Your task to perform on an android device: check data usage Image 0: 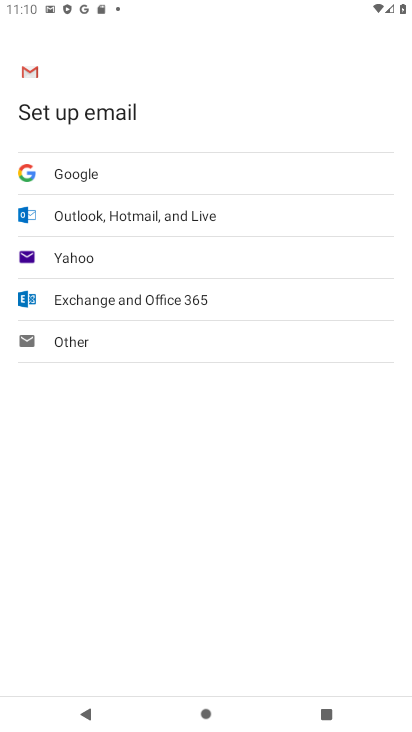
Step 0: drag from (220, 577) to (246, 29)
Your task to perform on an android device: check data usage Image 1: 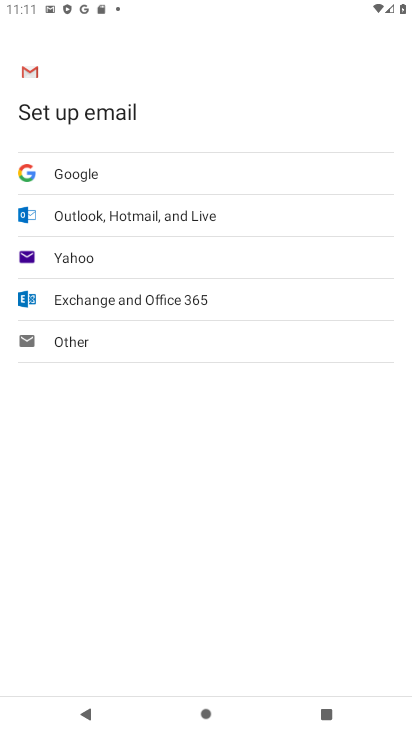
Step 1: press home button
Your task to perform on an android device: check data usage Image 2: 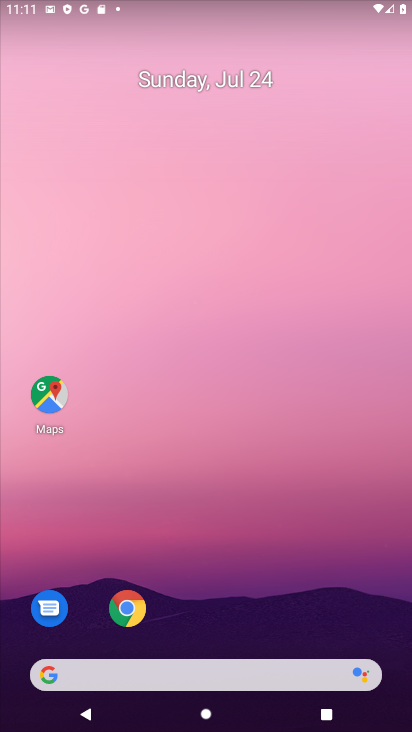
Step 2: drag from (298, 394) to (276, 56)
Your task to perform on an android device: check data usage Image 3: 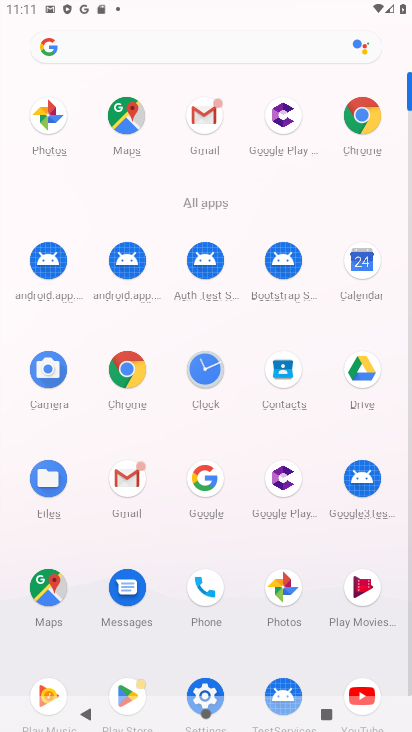
Step 3: click (228, 708)
Your task to perform on an android device: check data usage Image 4: 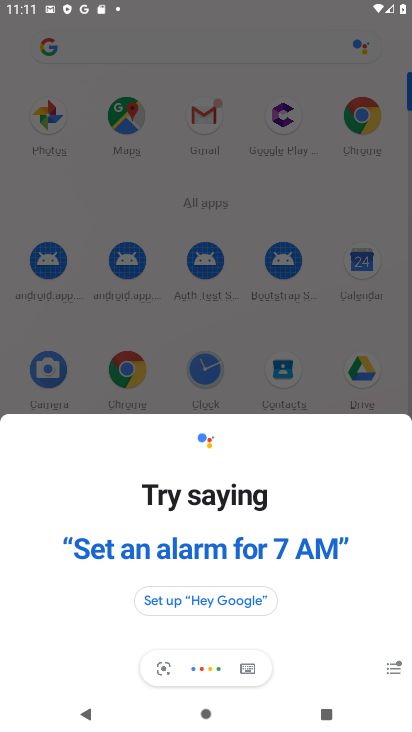
Step 4: click (124, 59)
Your task to perform on an android device: check data usage Image 5: 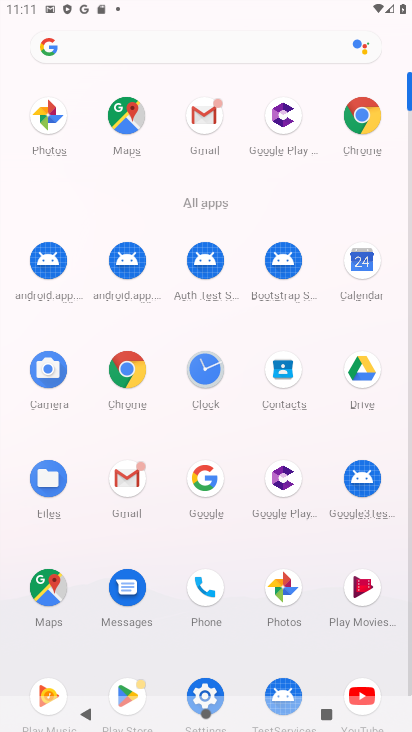
Step 5: click (217, 701)
Your task to perform on an android device: check data usage Image 6: 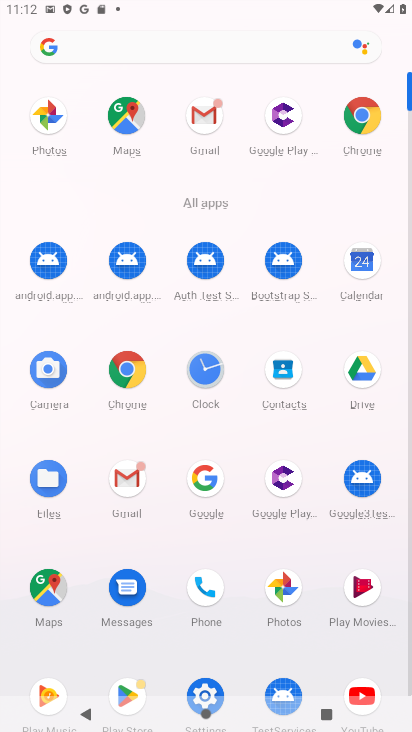
Step 6: click (195, 693)
Your task to perform on an android device: check data usage Image 7: 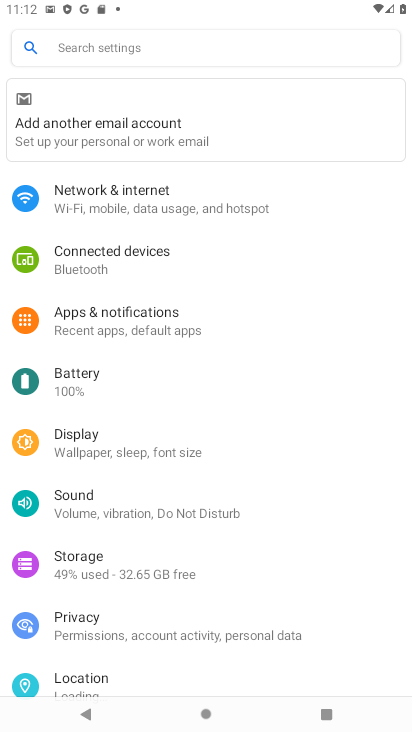
Step 7: click (104, 208)
Your task to perform on an android device: check data usage Image 8: 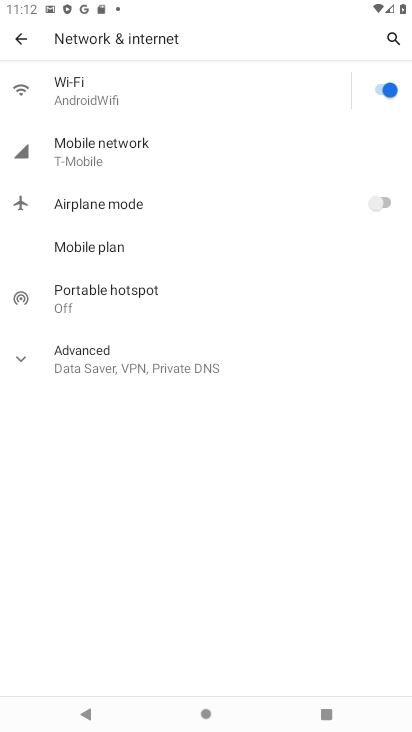
Step 8: click (73, 156)
Your task to perform on an android device: check data usage Image 9: 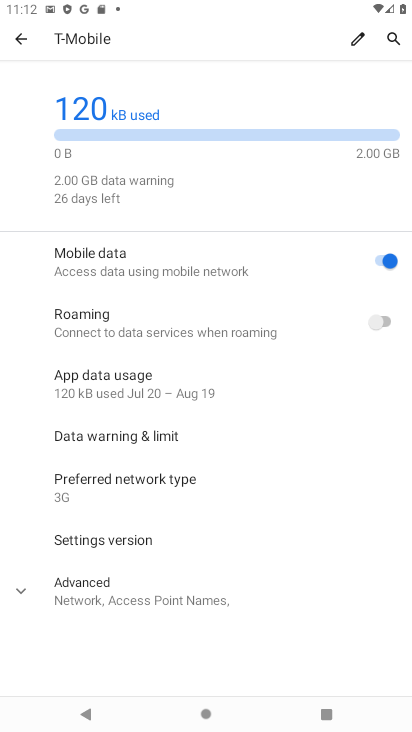
Step 9: task complete